Your task to perform on an android device: Go to Reddit.com Image 0: 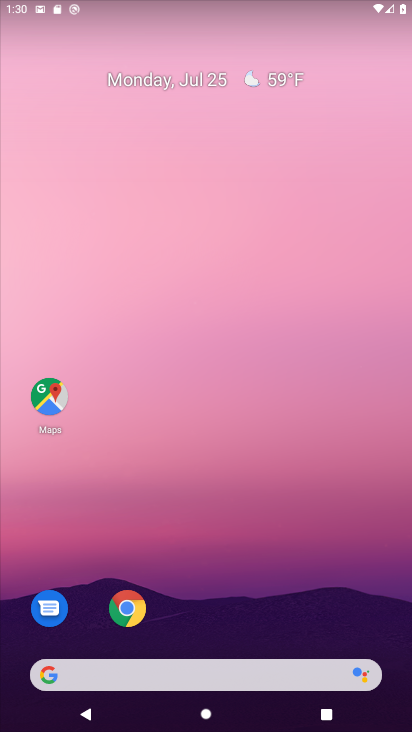
Step 0: click (128, 606)
Your task to perform on an android device: Go to Reddit.com Image 1: 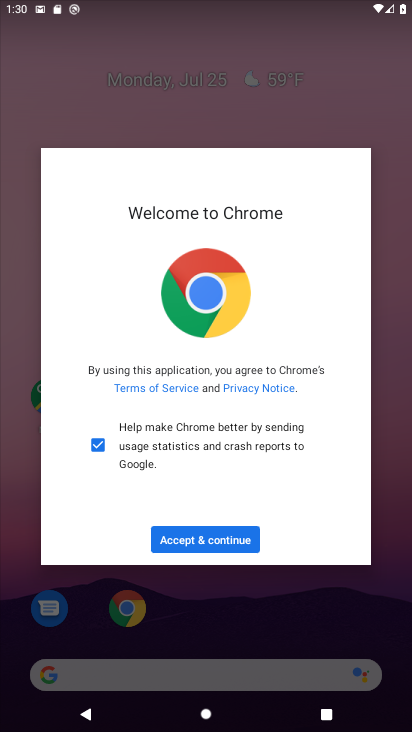
Step 1: click (195, 536)
Your task to perform on an android device: Go to Reddit.com Image 2: 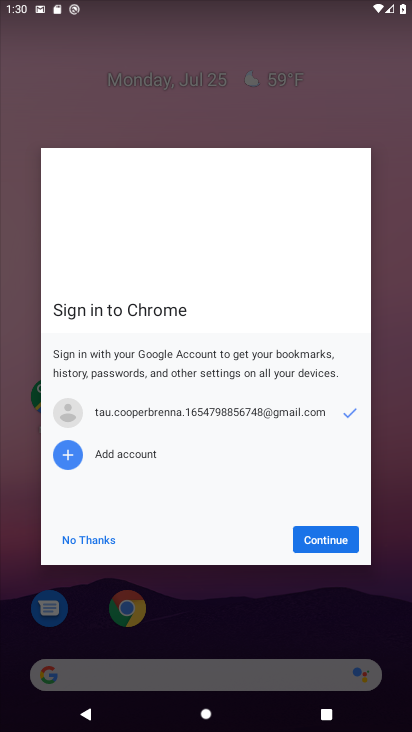
Step 2: click (328, 541)
Your task to perform on an android device: Go to Reddit.com Image 3: 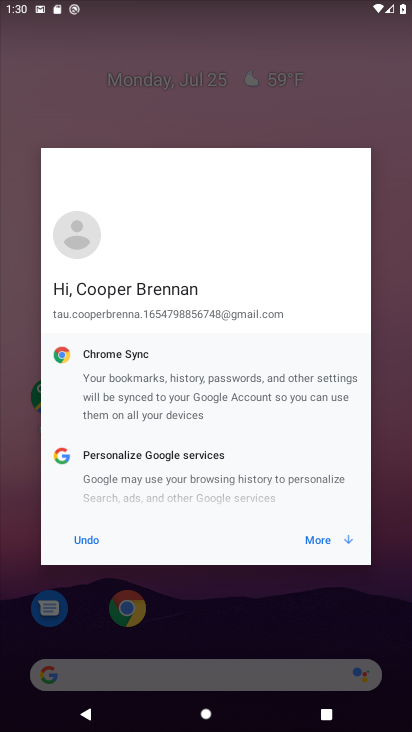
Step 3: click (314, 540)
Your task to perform on an android device: Go to Reddit.com Image 4: 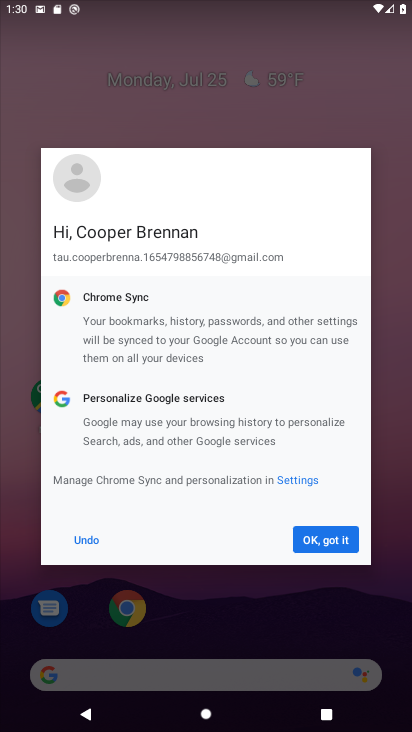
Step 4: click (339, 538)
Your task to perform on an android device: Go to Reddit.com Image 5: 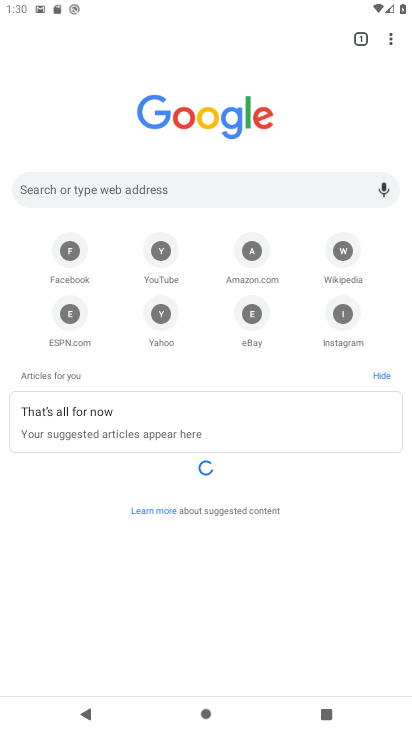
Step 5: click (84, 187)
Your task to perform on an android device: Go to Reddit.com Image 6: 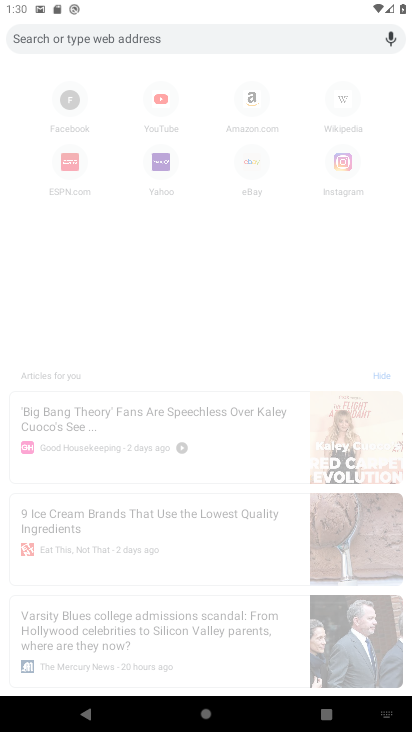
Step 6: type "Reddit.com"
Your task to perform on an android device: Go to Reddit.com Image 7: 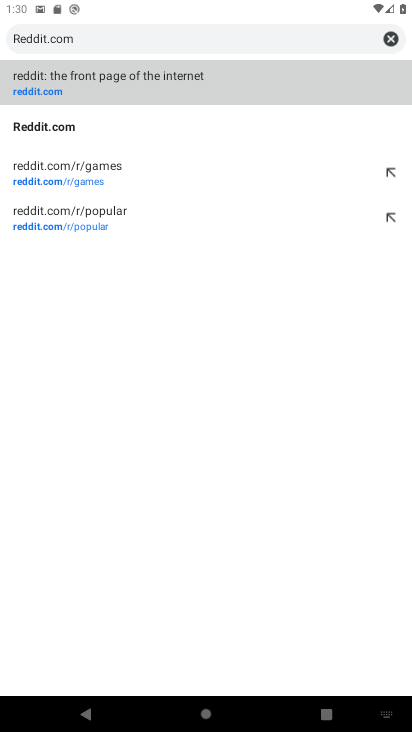
Step 7: click (37, 73)
Your task to perform on an android device: Go to Reddit.com Image 8: 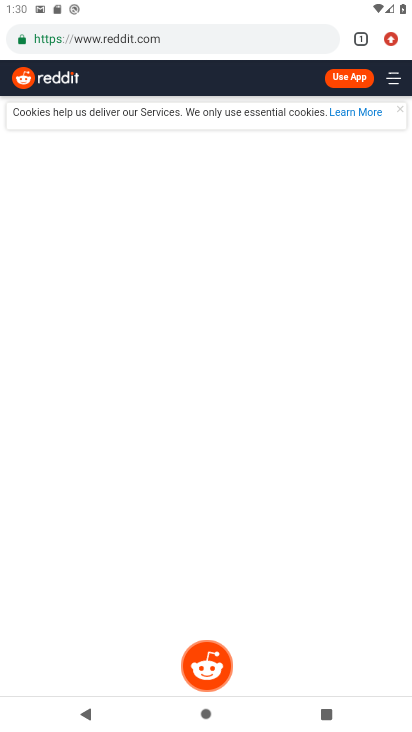
Step 8: task complete